Your task to perform on an android device: remove spam from my inbox in the gmail app Image 0: 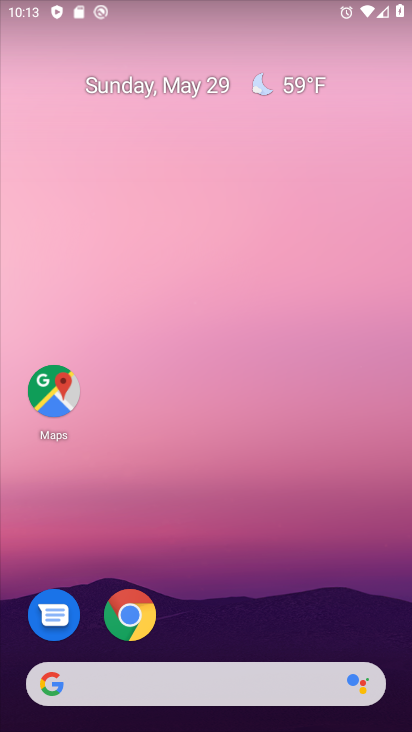
Step 0: drag from (226, 605) to (305, 68)
Your task to perform on an android device: remove spam from my inbox in the gmail app Image 1: 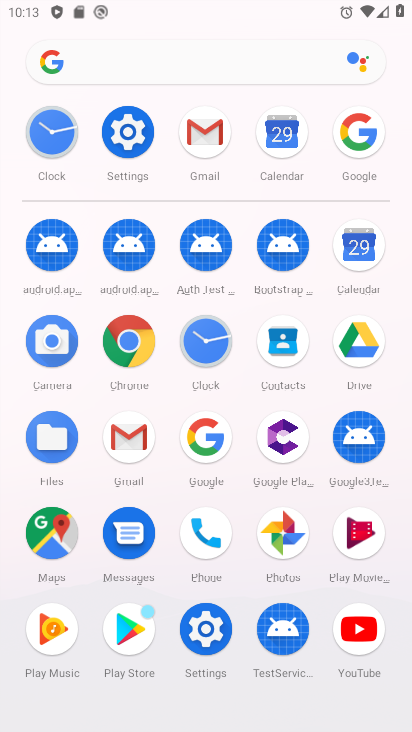
Step 1: click (204, 136)
Your task to perform on an android device: remove spam from my inbox in the gmail app Image 2: 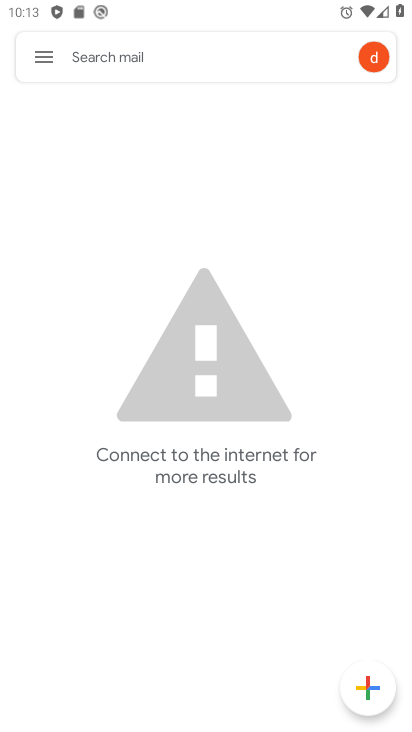
Step 2: click (46, 54)
Your task to perform on an android device: remove spam from my inbox in the gmail app Image 3: 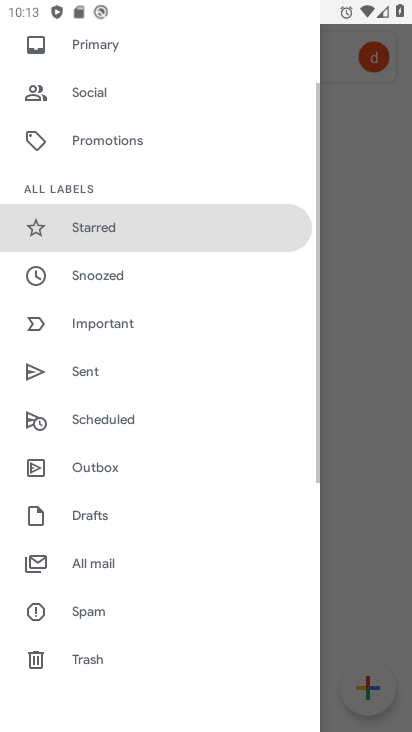
Step 3: drag from (148, 536) to (156, 345)
Your task to perform on an android device: remove spam from my inbox in the gmail app Image 4: 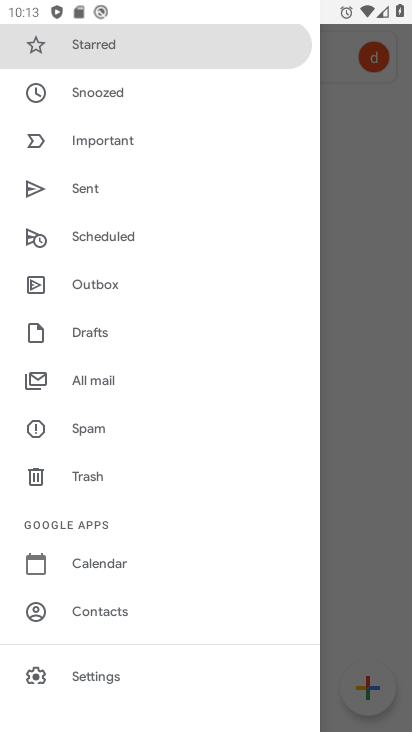
Step 4: click (119, 422)
Your task to perform on an android device: remove spam from my inbox in the gmail app Image 5: 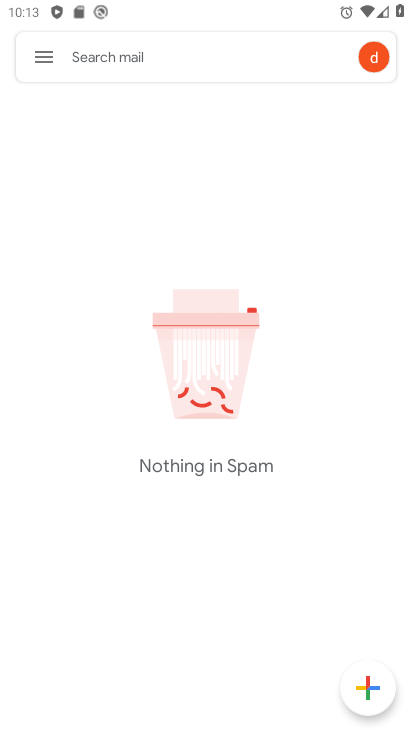
Step 5: task complete